Your task to perform on an android device: Go to privacy settings Image 0: 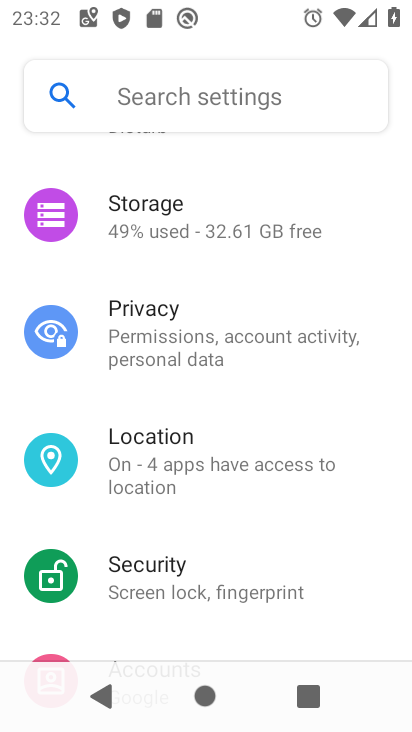
Step 0: press back button
Your task to perform on an android device: Go to privacy settings Image 1: 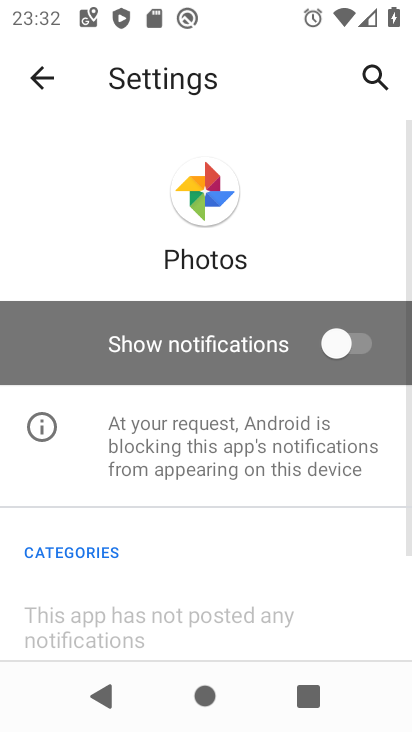
Step 1: press back button
Your task to perform on an android device: Go to privacy settings Image 2: 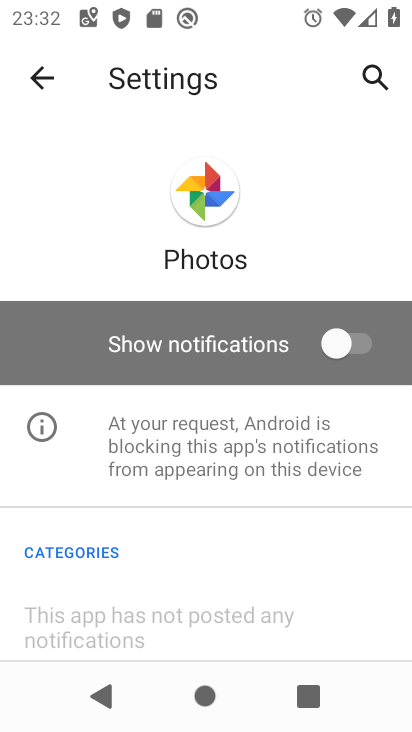
Step 2: press back button
Your task to perform on an android device: Go to privacy settings Image 3: 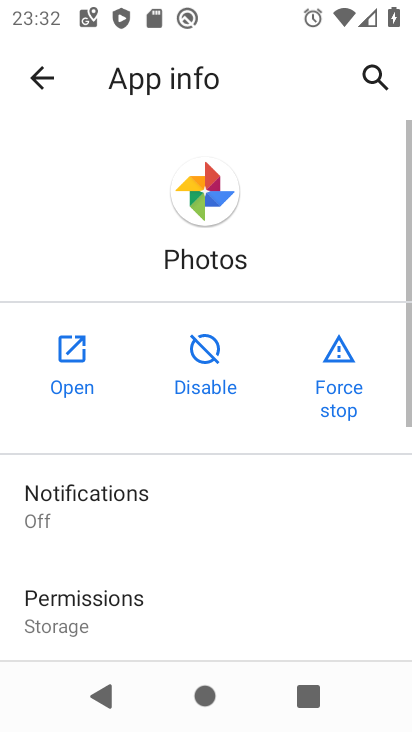
Step 3: press back button
Your task to perform on an android device: Go to privacy settings Image 4: 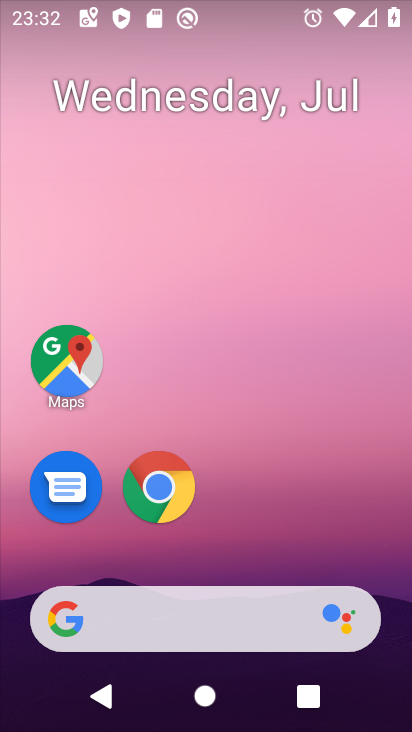
Step 4: drag from (256, 593) to (274, 133)
Your task to perform on an android device: Go to privacy settings Image 5: 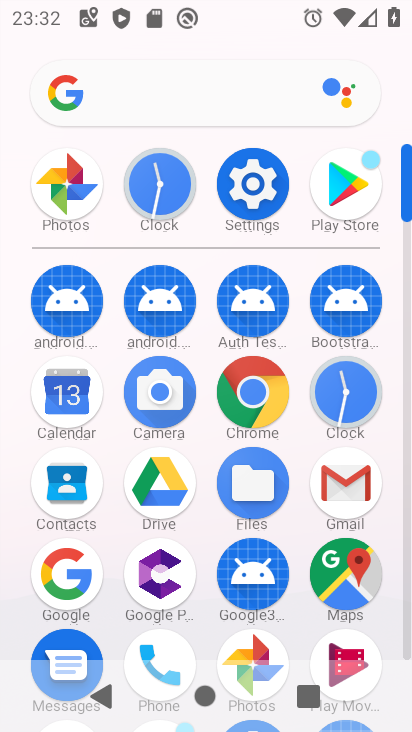
Step 5: click (263, 175)
Your task to perform on an android device: Go to privacy settings Image 6: 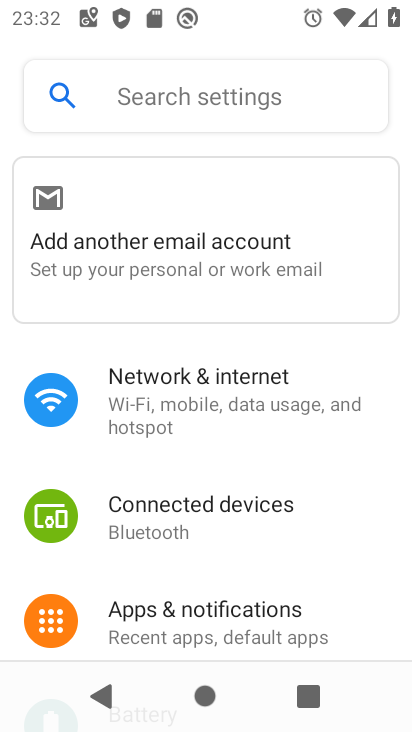
Step 6: drag from (191, 586) to (235, 52)
Your task to perform on an android device: Go to privacy settings Image 7: 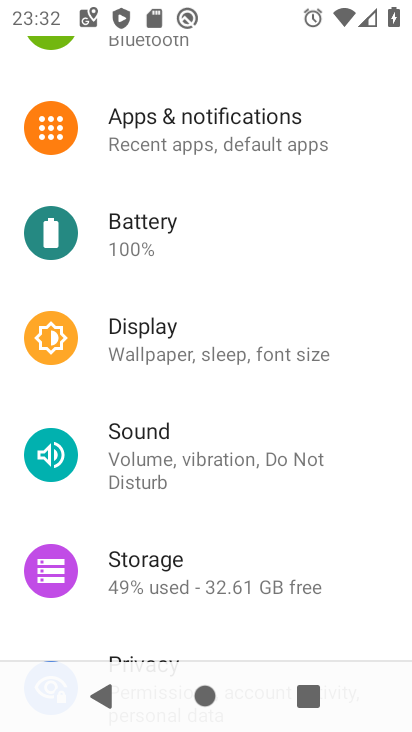
Step 7: drag from (218, 600) to (271, 193)
Your task to perform on an android device: Go to privacy settings Image 8: 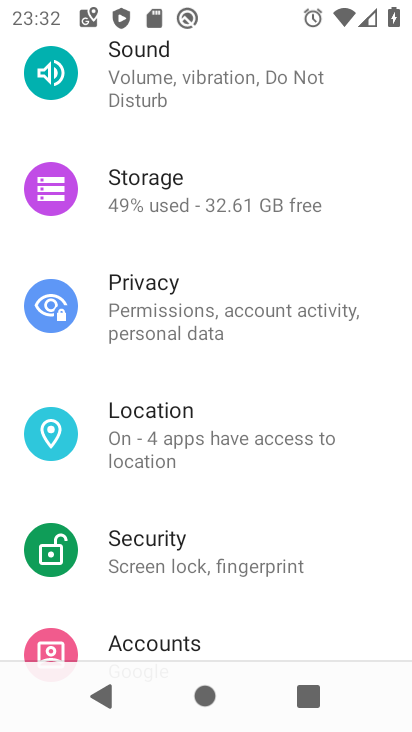
Step 8: click (169, 300)
Your task to perform on an android device: Go to privacy settings Image 9: 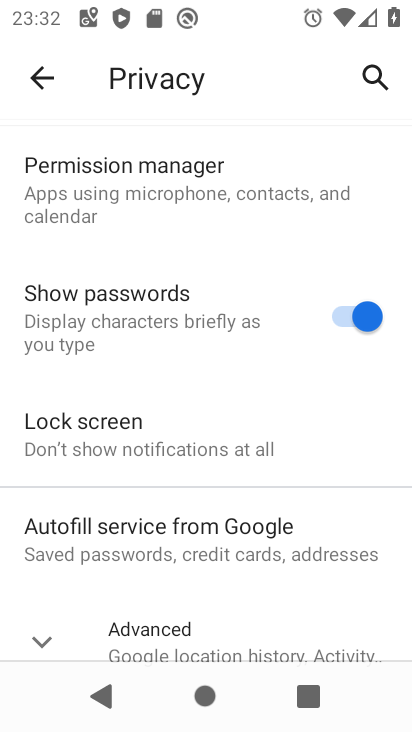
Step 9: task complete